Your task to perform on an android device: turn off javascript in the chrome app Image 0: 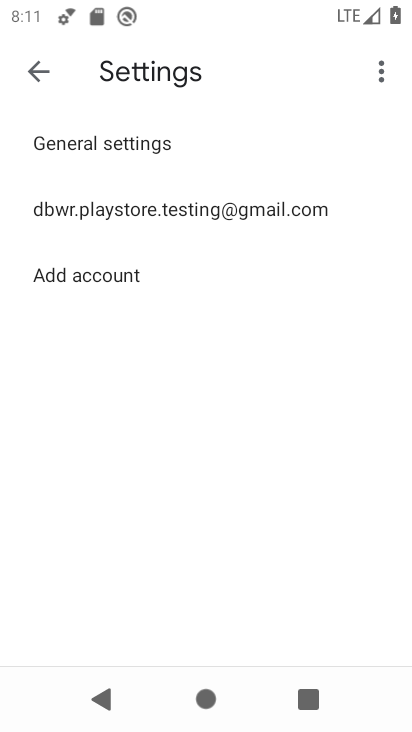
Step 0: press home button
Your task to perform on an android device: turn off javascript in the chrome app Image 1: 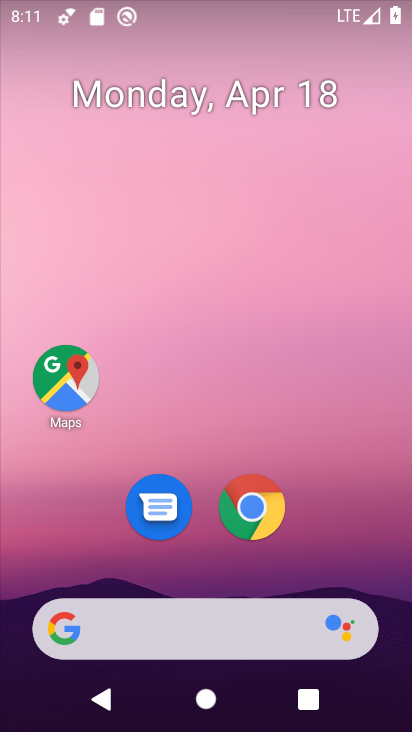
Step 1: drag from (9, 507) to (61, 461)
Your task to perform on an android device: turn off javascript in the chrome app Image 2: 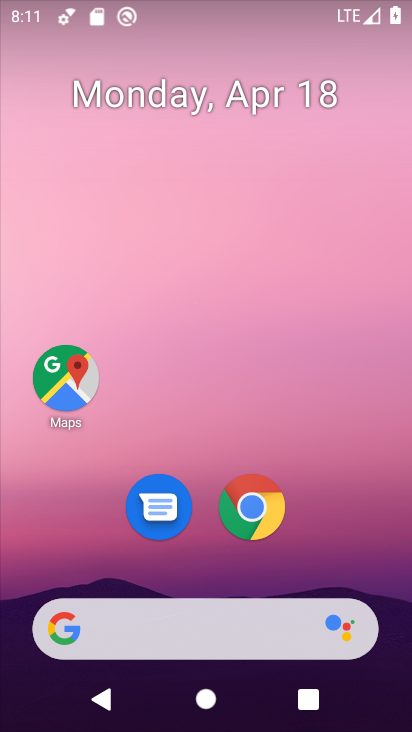
Step 2: drag from (211, 98) to (216, 60)
Your task to perform on an android device: turn off javascript in the chrome app Image 3: 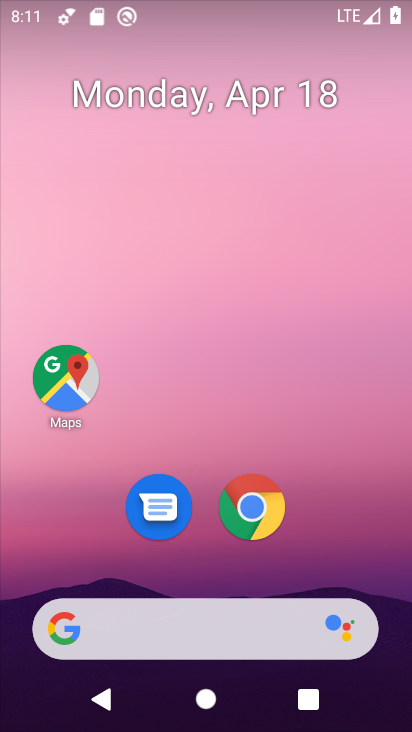
Step 3: drag from (12, 554) to (252, 117)
Your task to perform on an android device: turn off javascript in the chrome app Image 4: 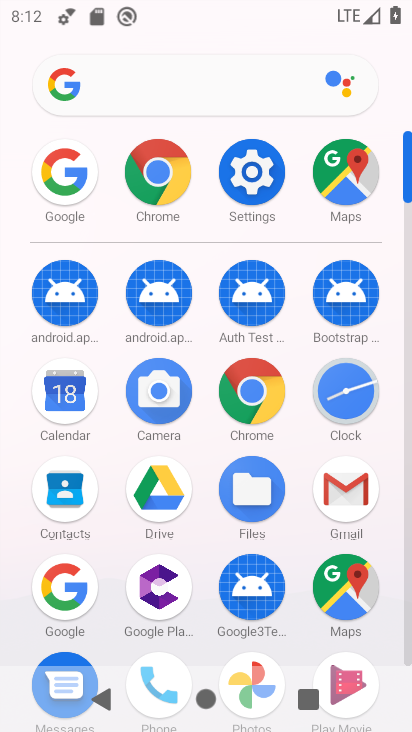
Step 4: click (132, 174)
Your task to perform on an android device: turn off javascript in the chrome app Image 5: 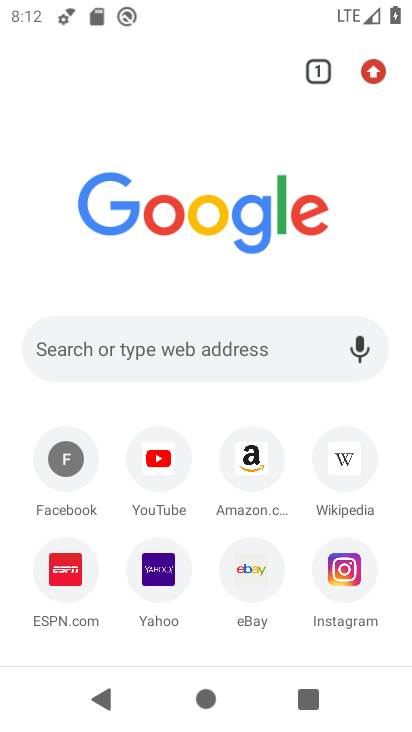
Step 5: click (378, 69)
Your task to perform on an android device: turn off javascript in the chrome app Image 6: 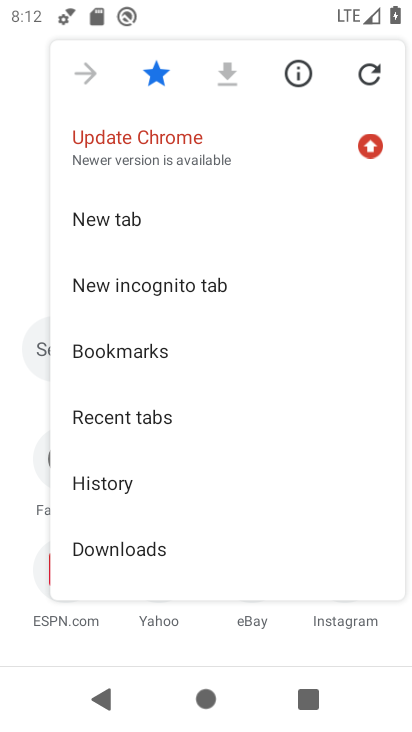
Step 6: drag from (142, 520) to (190, 210)
Your task to perform on an android device: turn off javascript in the chrome app Image 7: 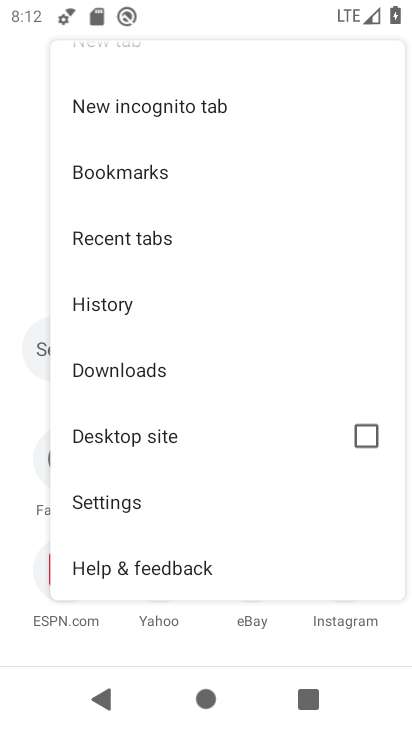
Step 7: click (156, 499)
Your task to perform on an android device: turn off javascript in the chrome app Image 8: 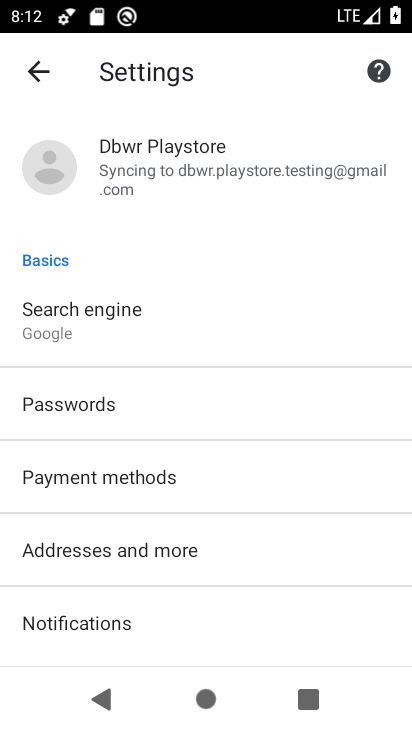
Step 8: drag from (116, 565) to (148, 222)
Your task to perform on an android device: turn off javascript in the chrome app Image 9: 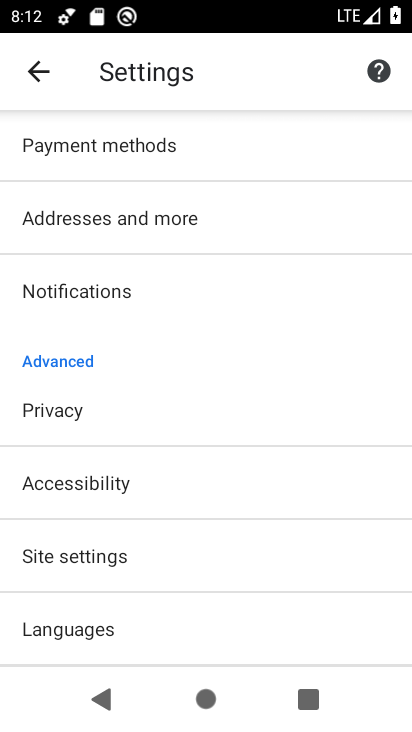
Step 9: click (110, 568)
Your task to perform on an android device: turn off javascript in the chrome app Image 10: 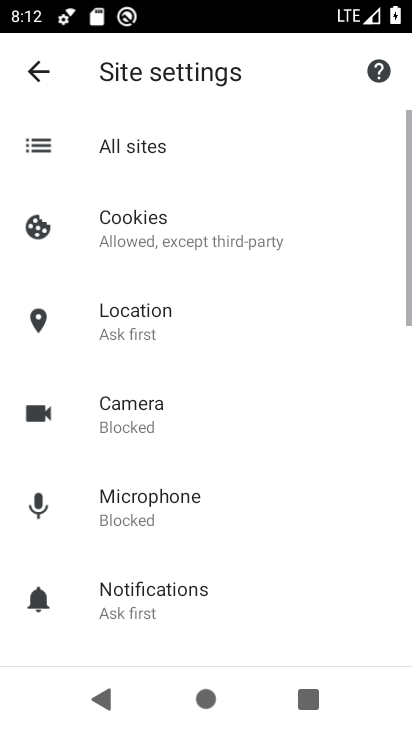
Step 10: drag from (106, 573) to (168, 253)
Your task to perform on an android device: turn off javascript in the chrome app Image 11: 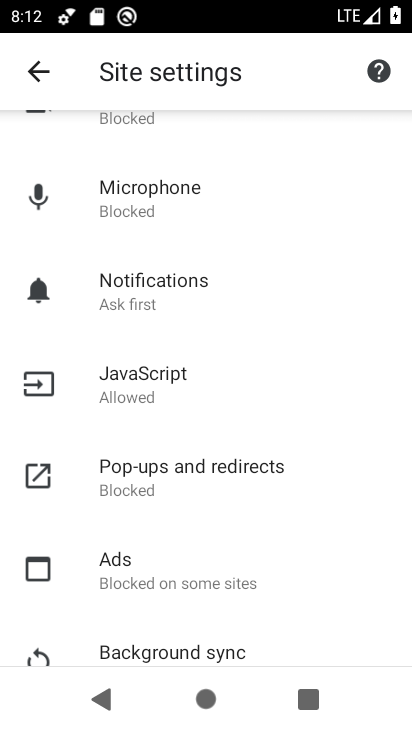
Step 11: click (186, 385)
Your task to perform on an android device: turn off javascript in the chrome app Image 12: 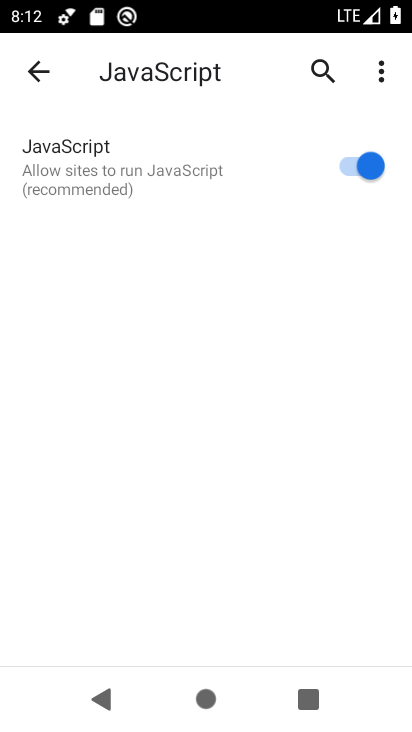
Step 12: click (301, 178)
Your task to perform on an android device: turn off javascript in the chrome app Image 13: 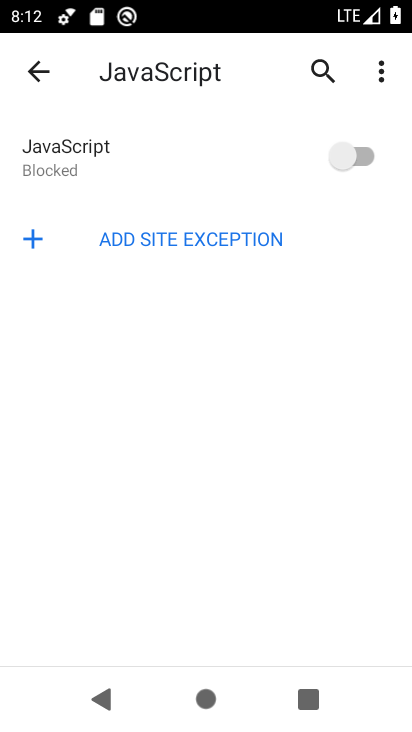
Step 13: task complete